Your task to perform on an android device: toggle location history Image 0: 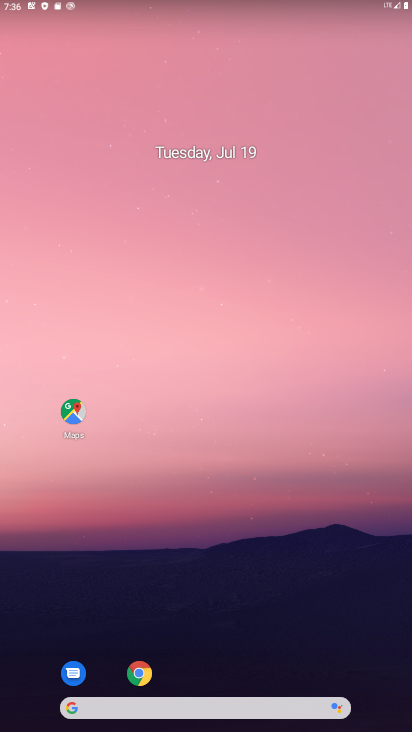
Step 0: drag from (371, 686) to (1, 50)
Your task to perform on an android device: toggle location history Image 1: 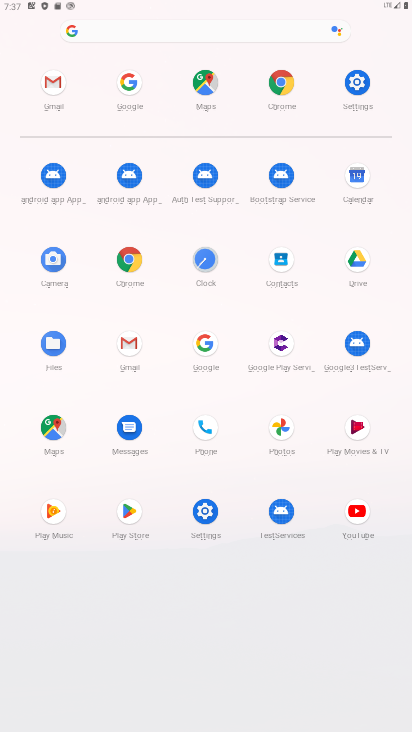
Step 1: click (206, 517)
Your task to perform on an android device: toggle location history Image 2: 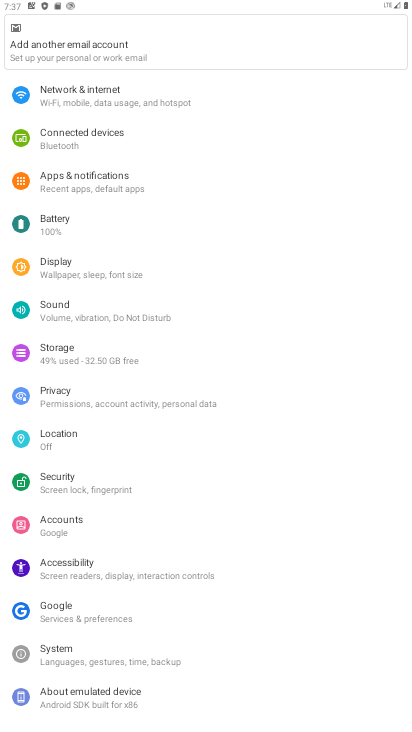
Step 2: click (69, 454)
Your task to perform on an android device: toggle location history Image 3: 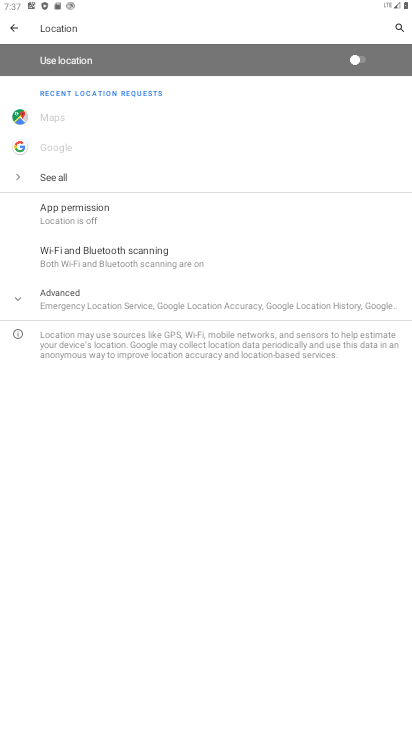
Step 3: click (74, 299)
Your task to perform on an android device: toggle location history Image 4: 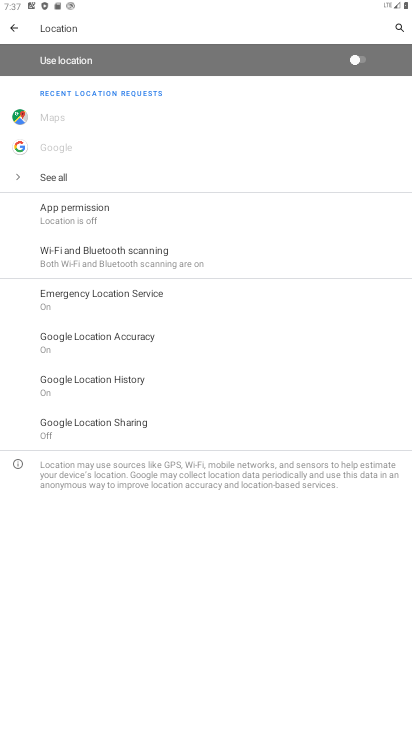
Step 4: click (119, 378)
Your task to perform on an android device: toggle location history Image 5: 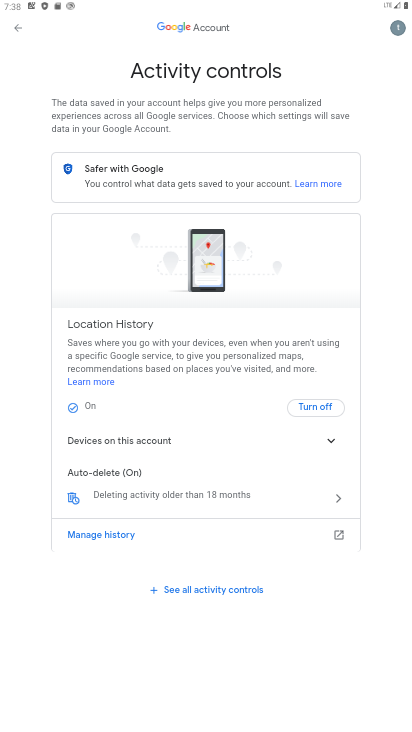
Step 5: click (302, 404)
Your task to perform on an android device: toggle location history Image 6: 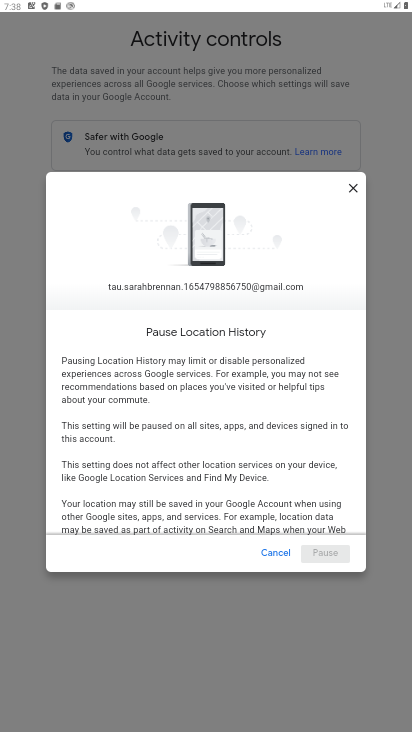
Step 6: task complete